Your task to perform on an android device: What's the weather today? Image 0: 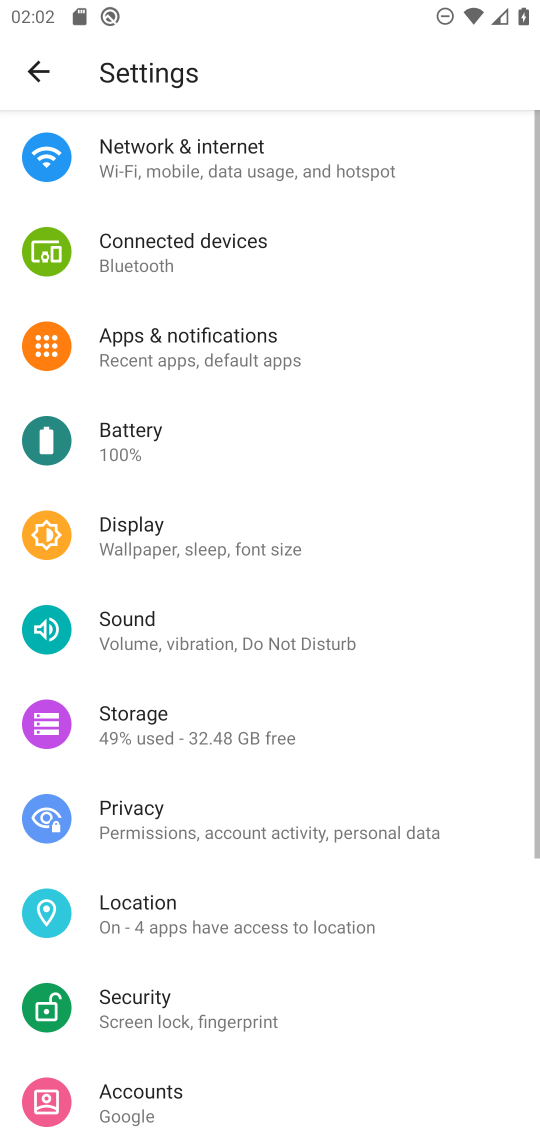
Step 0: press home button
Your task to perform on an android device: What's the weather today? Image 1: 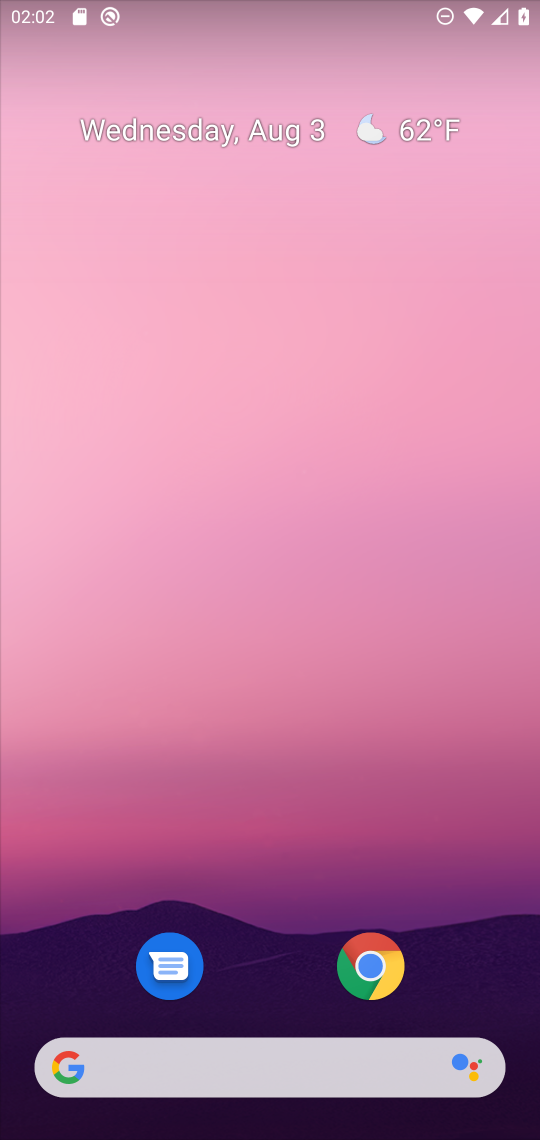
Step 1: drag from (235, 963) to (237, 325)
Your task to perform on an android device: What's the weather today? Image 2: 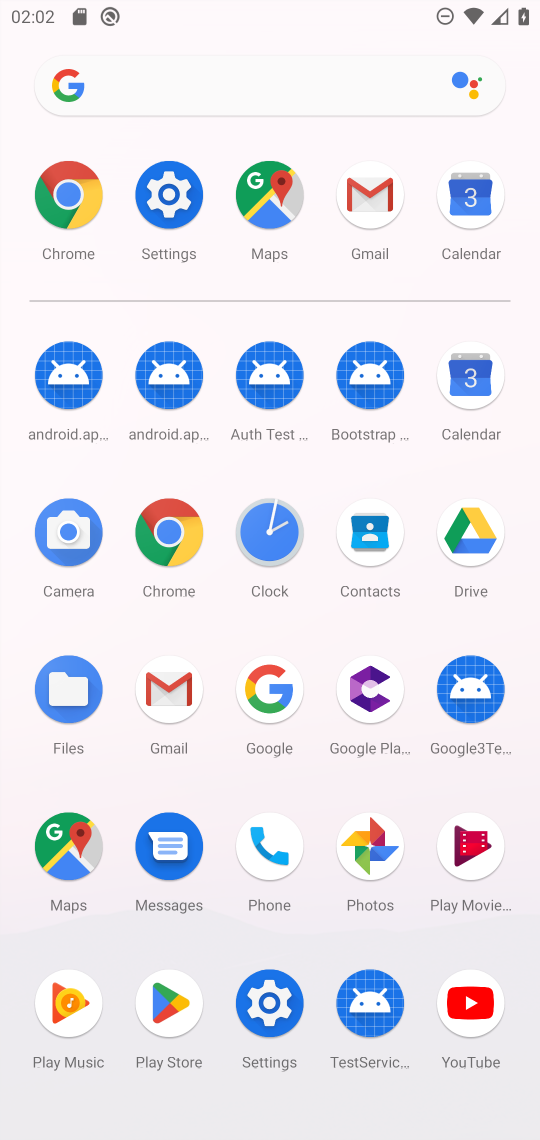
Step 2: click (286, 678)
Your task to perform on an android device: What's the weather today? Image 3: 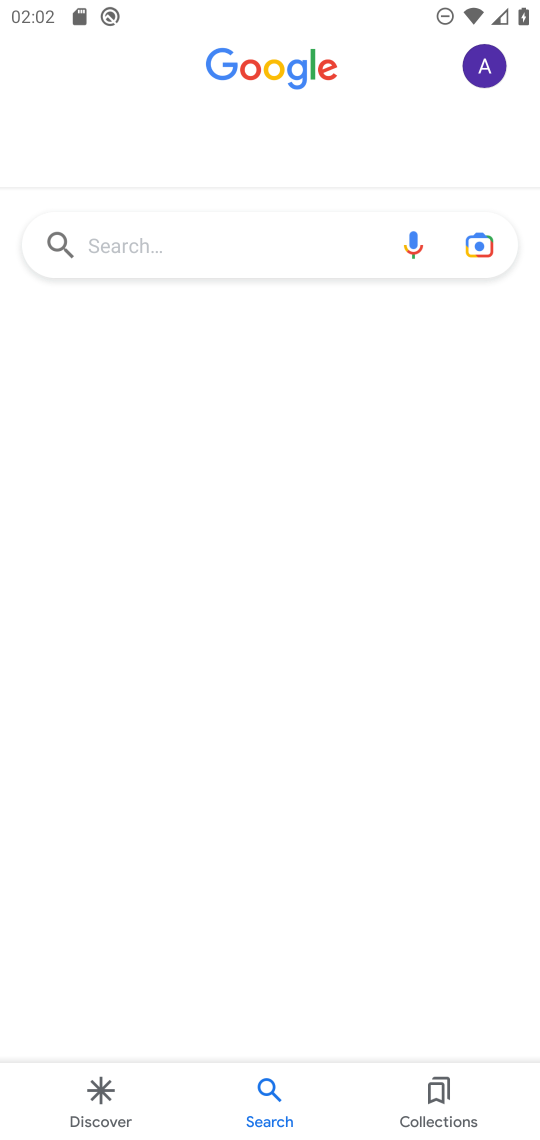
Step 3: click (166, 250)
Your task to perform on an android device: What's the weather today? Image 4: 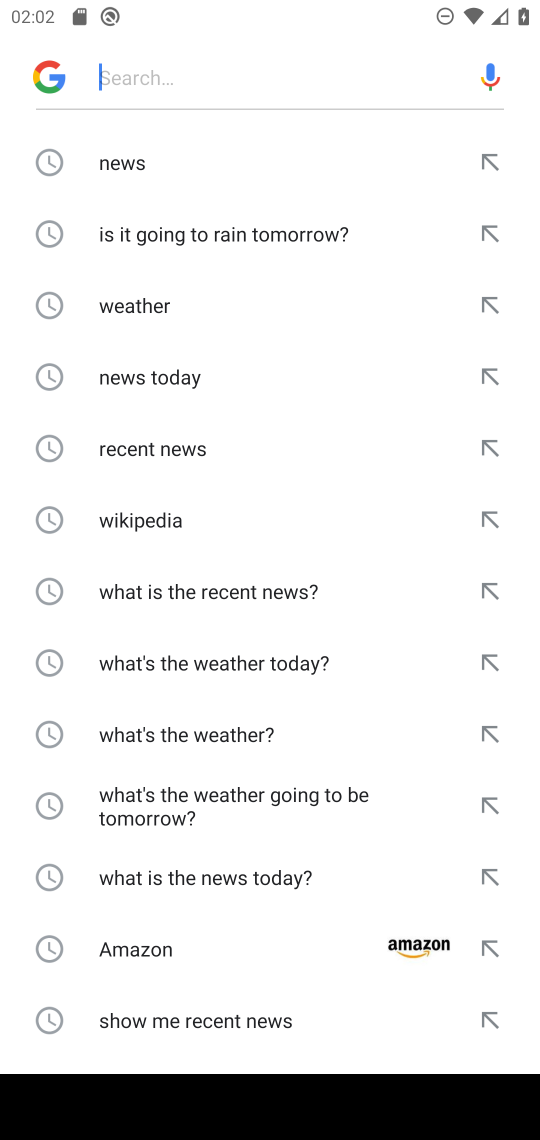
Step 4: click (157, 310)
Your task to perform on an android device: What's the weather today? Image 5: 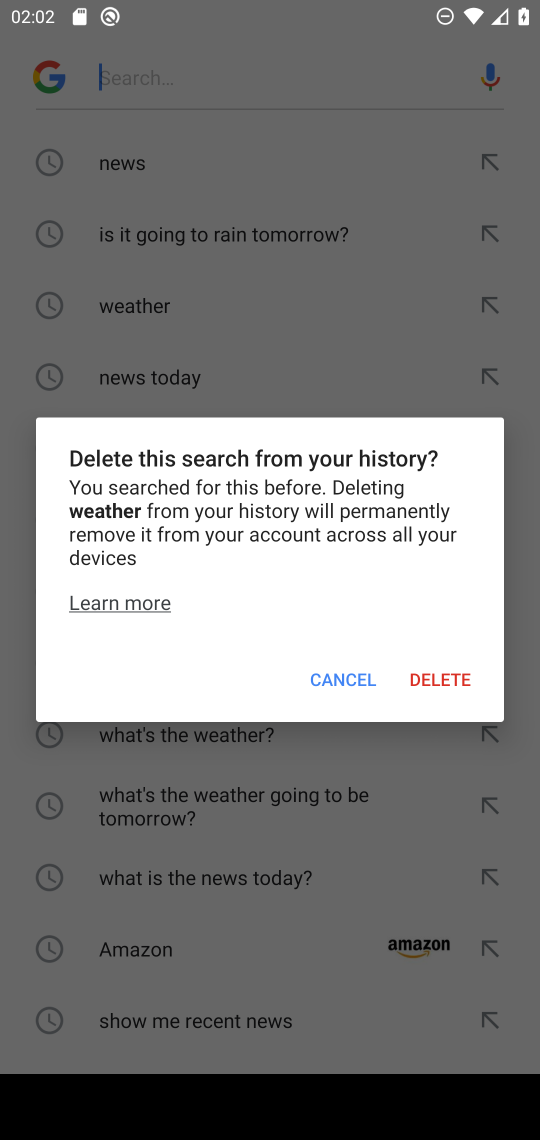
Step 5: click (329, 676)
Your task to perform on an android device: What's the weather today? Image 6: 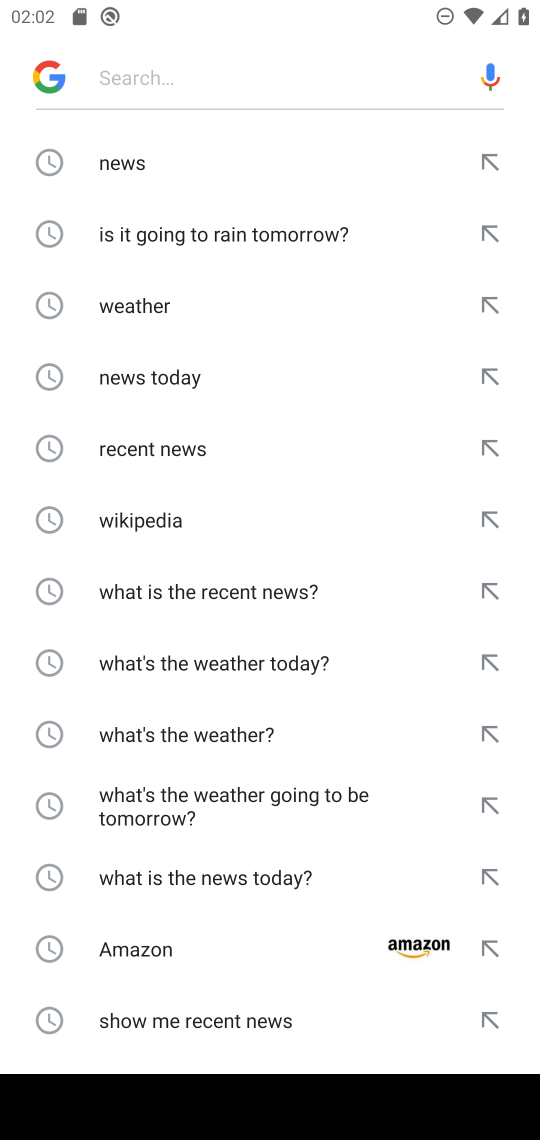
Step 6: click (164, 318)
Your task to perform on an android device: What's the weather today? Image 7: 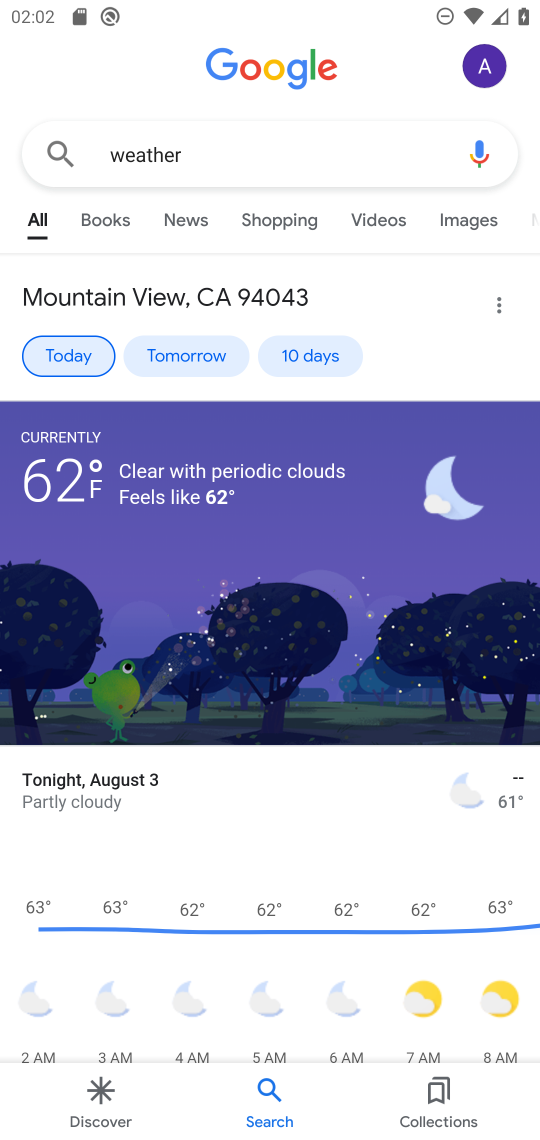
Step 7: task complete